Your task to perform on an android device: clear all cookies in the chrome app Image 0: 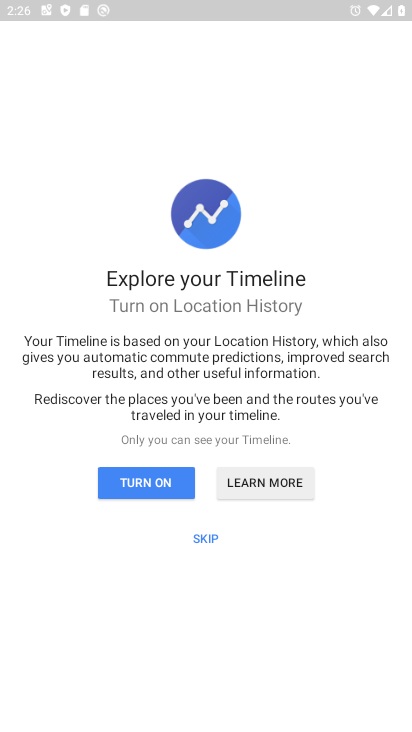
Step 0: click (167, 542)
Your task to perform on an android device: clear all cookies in the chrome app Image 1: 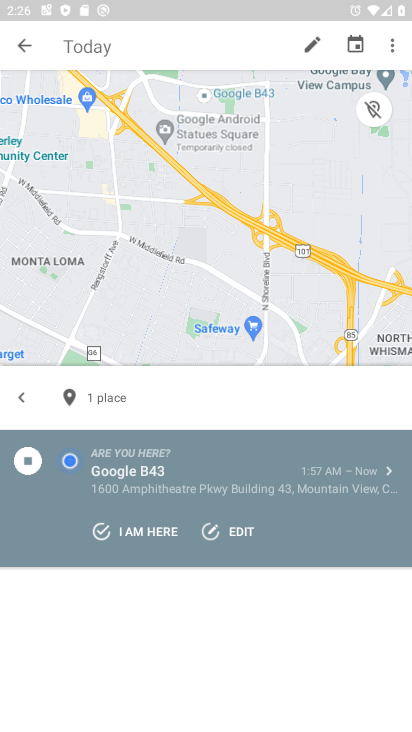
Step 1: press back button
Your task to perform on an android device: clear all cookies in the chrome app Image 2: 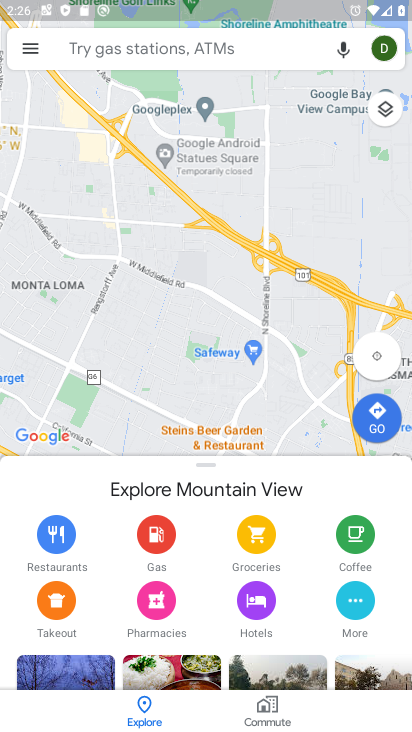
Step 2: press home button
Your task to perform on an android device: clear all cookies in the chrome app Image 3: 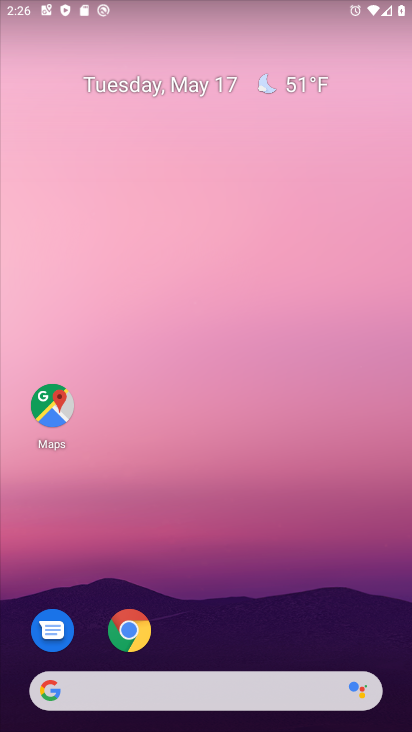
Step 3: click (120, 638)
Your task to perform on an android device: clear all cookies in the chrome app Image 4: 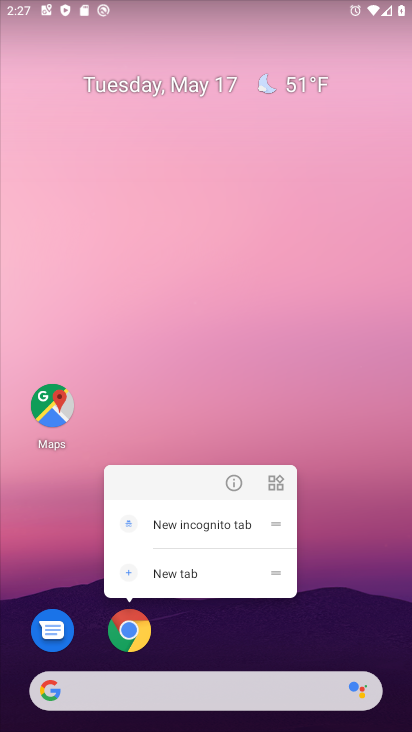
Step 4: click (140, 620)
Your task to perform on an android device: clear all cookies in the chrome app Image 5: 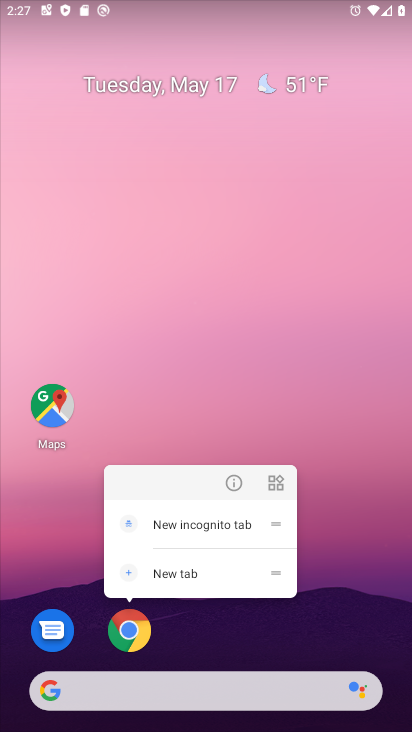
Step 5: click (131, 616)
Your task to perform on an android device: clear all cookies in the chrome app Image 6: 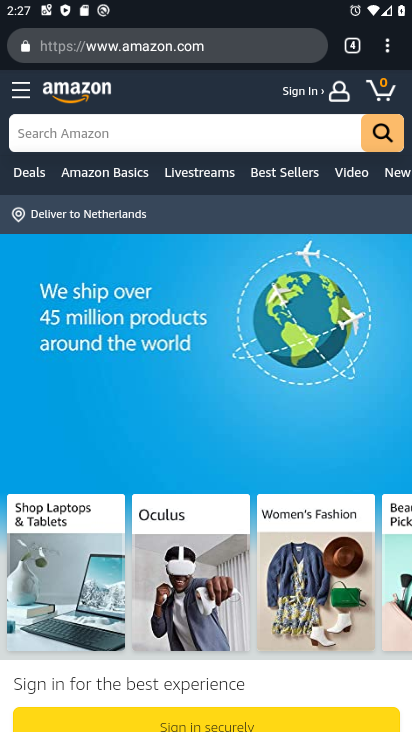
Step 6: drag from (386, 49) to (239, 256)
Your task to perform on an android device: clear all cookies in the chrome app Image 7: 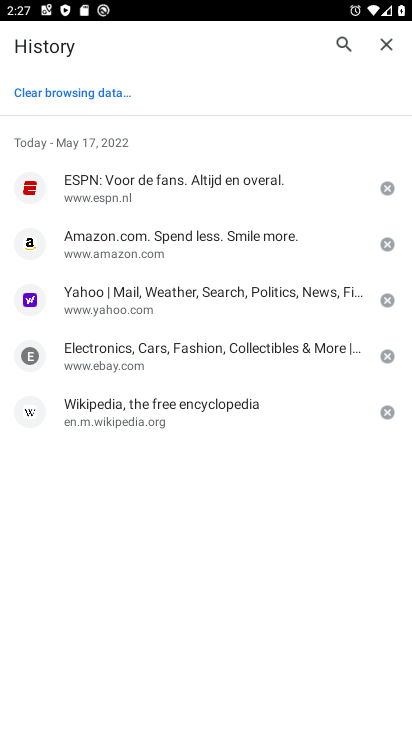
Step 7: click (78, 88)
Your task to perform on an android device: clear all cookies in the chrome app Image 8: 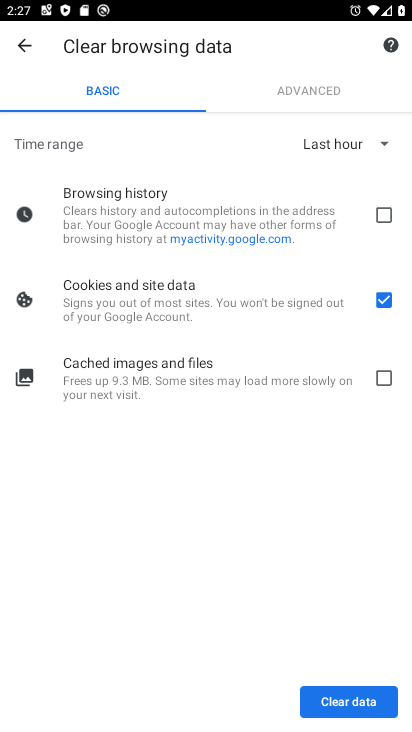
Step 8: click (349, 705)
Your task to perform on an android device: clear all cookies in the chrome app Image 9: 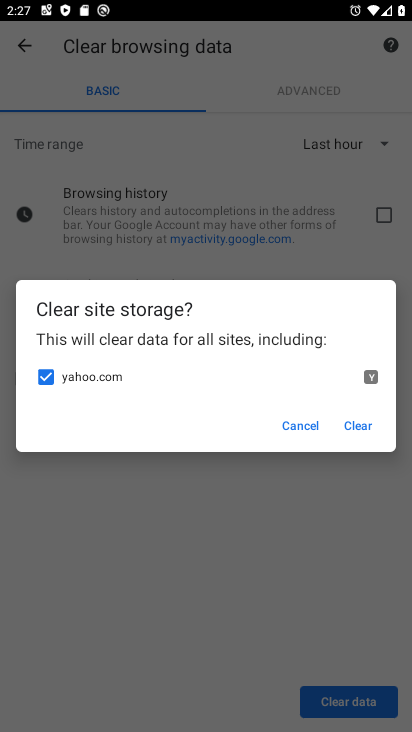
Step 9: click (362, 414)
Your task to perform on an android device: clear all cookies in the chrome app Image 10: 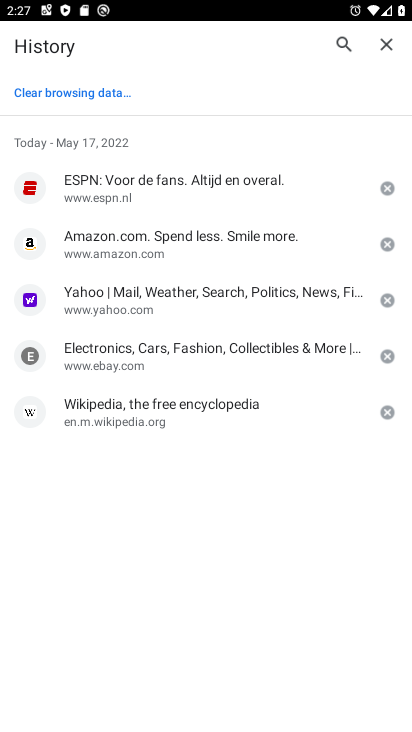
Step 10: task complete